Your task to perform on an android device: Open Google Maps and go to "Timeline" Image 0: 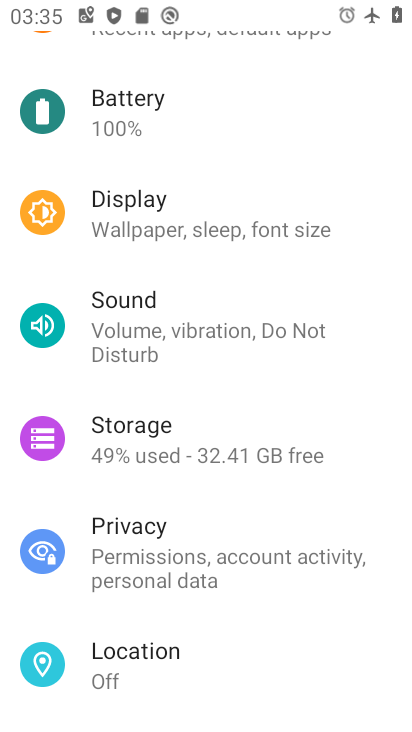
Step 0: press home button
Your task to perform on an android device: Open Google Maps and go to "Timeline" Image 1: 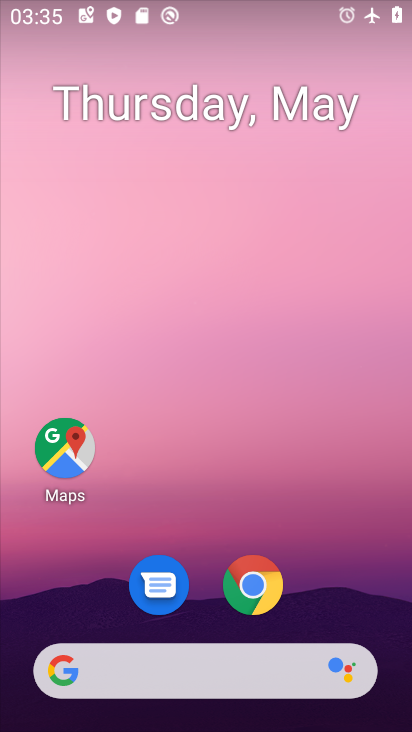
Step 1: click (64, 442)
Your task to perform on an android device: Open Google Maps and go to "Timeline" Image 2: 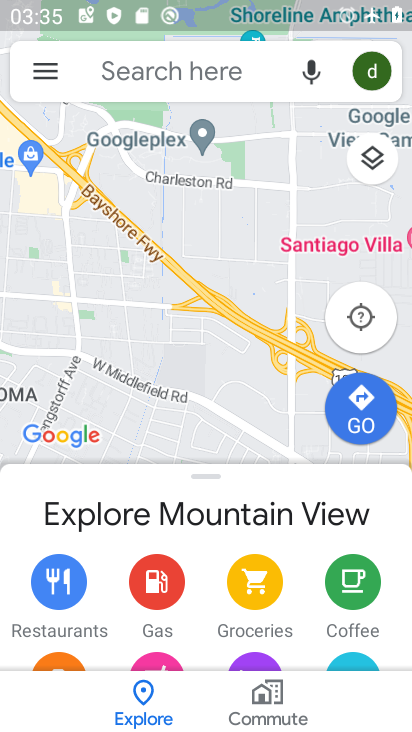
Step 2: click (48, 71)
Your task to perform on an android device: Open Google Maps and go to "Timeline" Image 3: 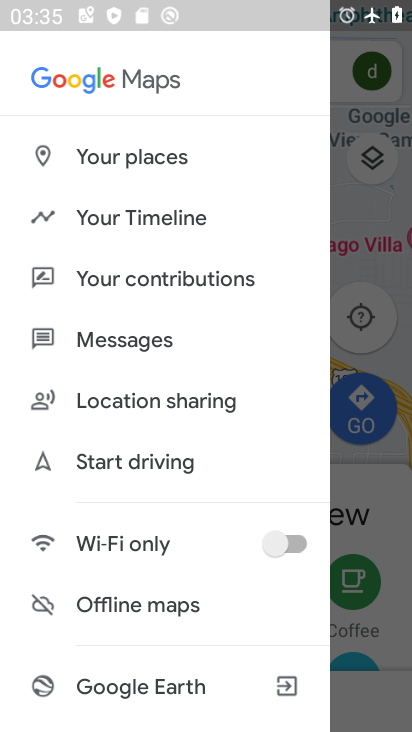
Step 3: click (141, 209)
Your task to perform on an android device: Open Google Maps and go to "Timeline" Image 4: 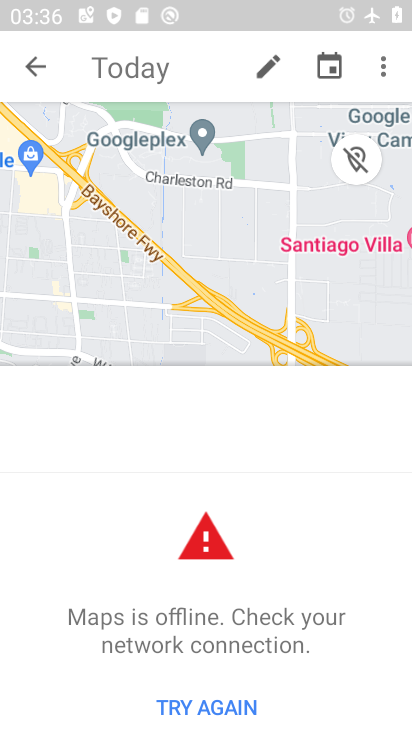
Step 4: task complete